Your task to perform on an android device: allow notifications from all sites in the chrome app Image 0: 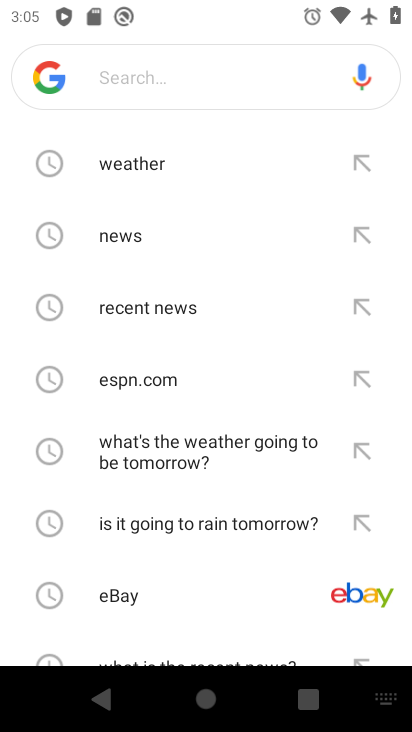
Step 0: press home button
Your task to perform on an android device: allow notifications from all sites in the chrome app Image 1: 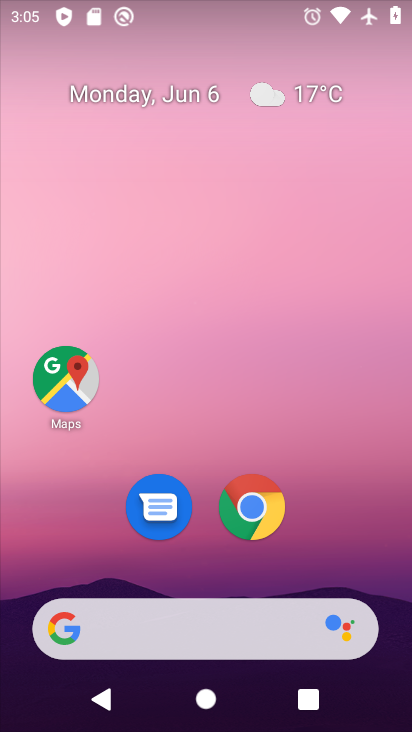
Step 1: click (258, 496)
Your task to perform on an android device: allow notifications from all sites in the chrome app Image 2: 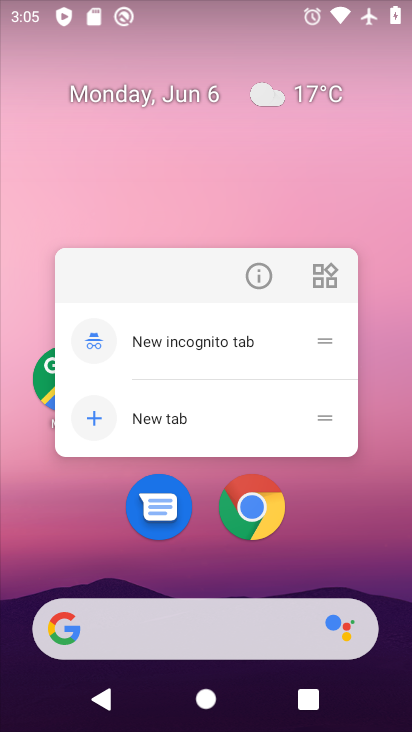
Step 2: click (258, 496)
Your task to perform on an android device: allow notifications from all sites in the chrome app Image 3: 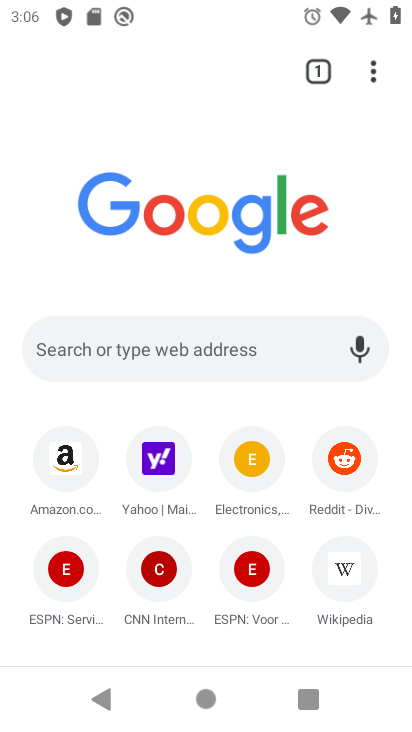
Step 3: drag from (375, 72) to (183, 495)
Your task to perform on an android device: allow notifications from all sites in the chrome app Image 4: 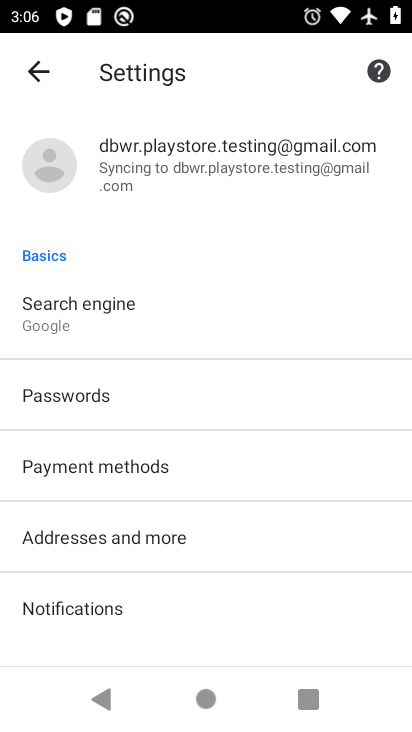
Step 4: click (193, 609)
Your task to perform on an android device: allow notifications from all sites in the chrome app Image 5: 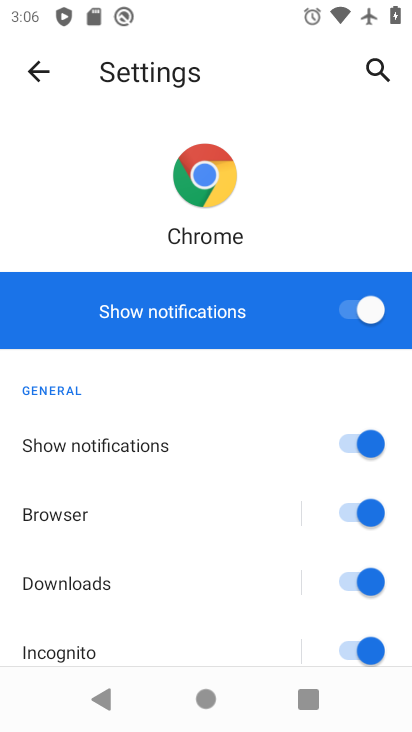
Step 5: drag from (249, 404) to (264, 98)
Your task to perform on an android device: allow notifications from all sites in the chrome app Image 6: 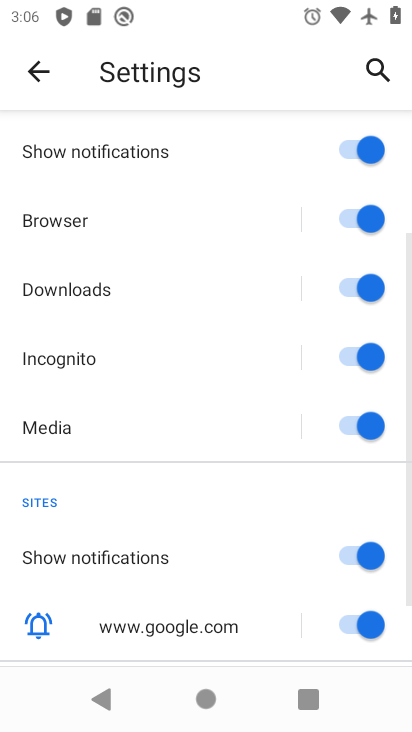
Step 6: drag from (194, 491) to (57, 705)
Your task to perform on an android device: allow notifications from all sites in the chrome app Image 7: 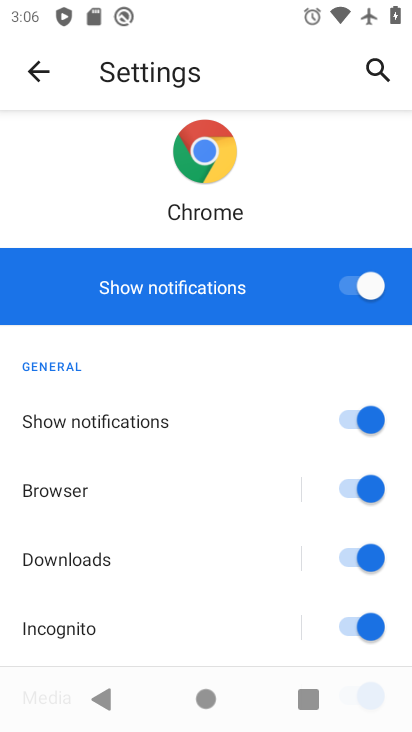
Step 7: click (360, 284)
Your task to perform on an android device: allow notifications from all sites in the chrome app Image 8: 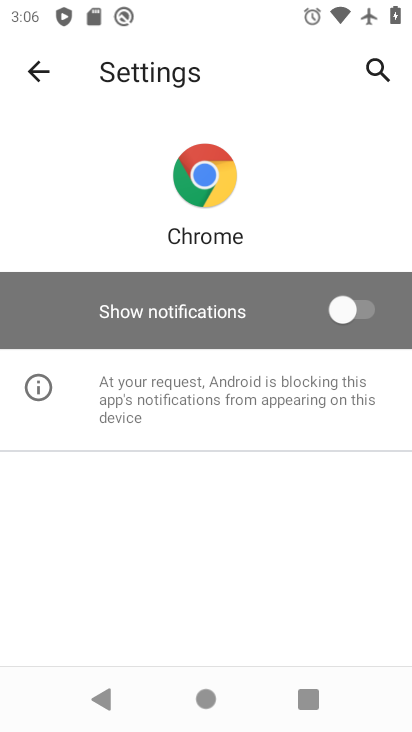
Step 8: click (362, 282)
Your task to perform on an android device: allow notifications from all sites in the chrome app Image 9: 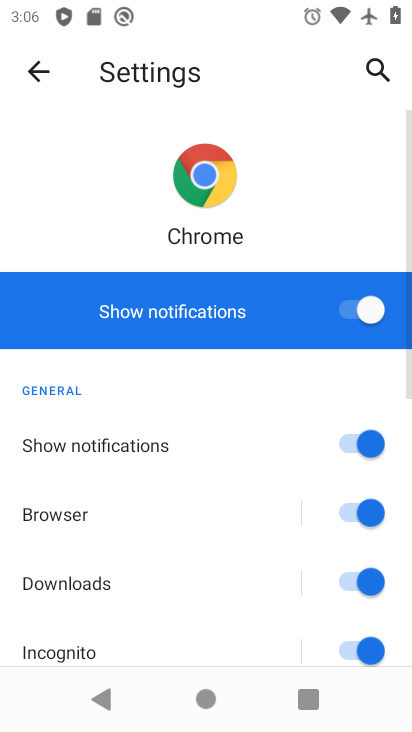
Step 9: task complete